Your task to perform on an android device: Turn on the flashlight Image 0: 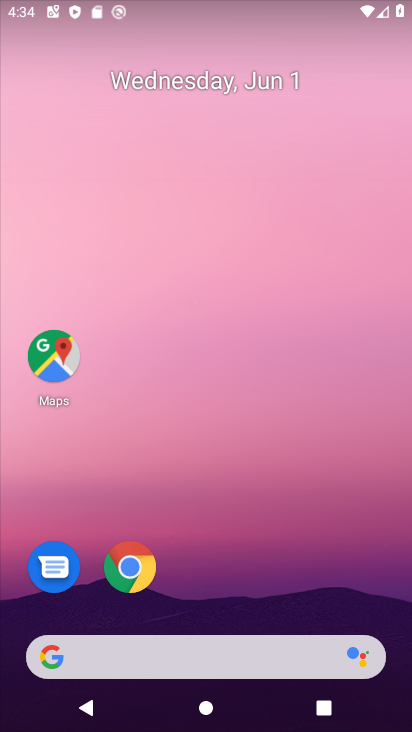
Step 0: drag from (232, 18) to (165, 573)
Your task to perform on an android device: Turn on the flashlight Image 1: 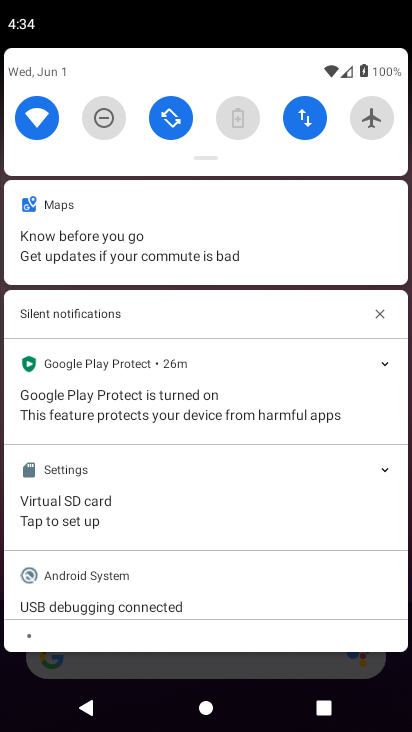
Step 1: drag from (208, 177) to (186, 716)
Your task to perform on an android device: Turn on the flashlight Image 2: 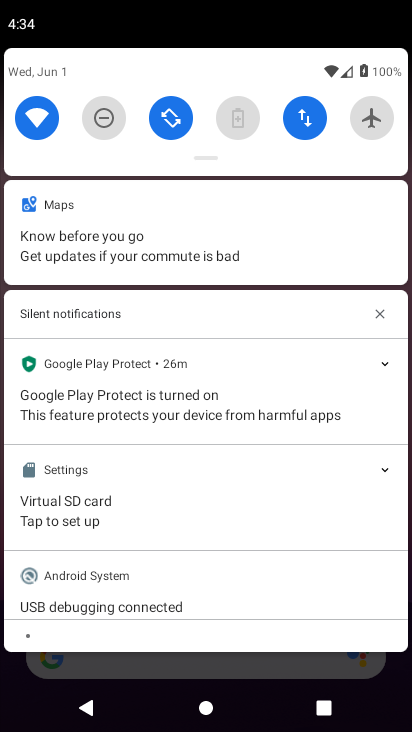
Step 2: drag from (201, 163) to (156, 672)
Your task to perform on an android device: Turn on the flashlight Image 3: 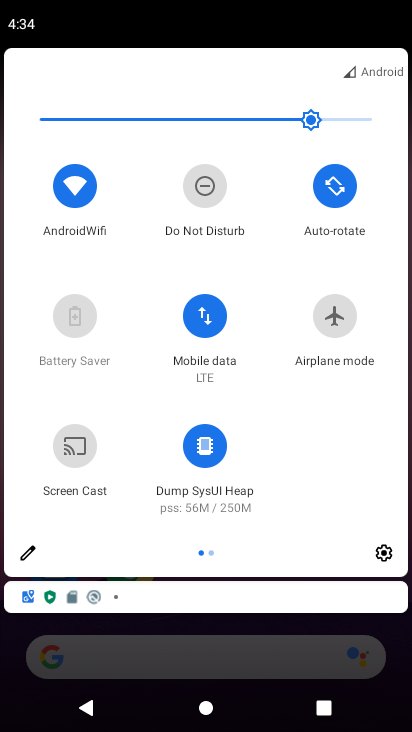
Step 3: click (26, 558)
Your task to perform on an android device: Turn on the flashlight Image 4: 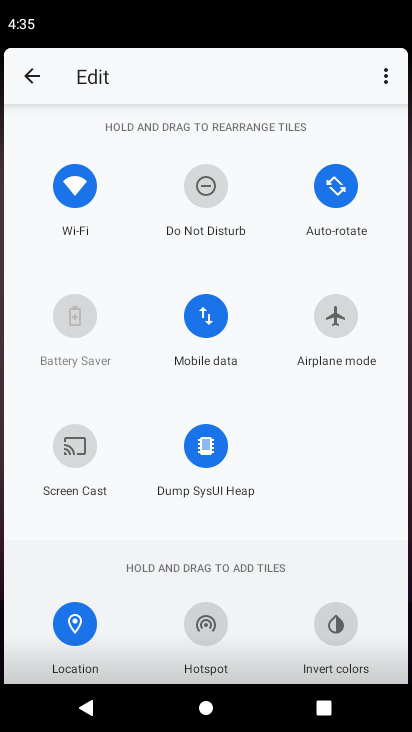
Step 4: task complete